Your task to perform on an android device: change keyboard looks Image 0: 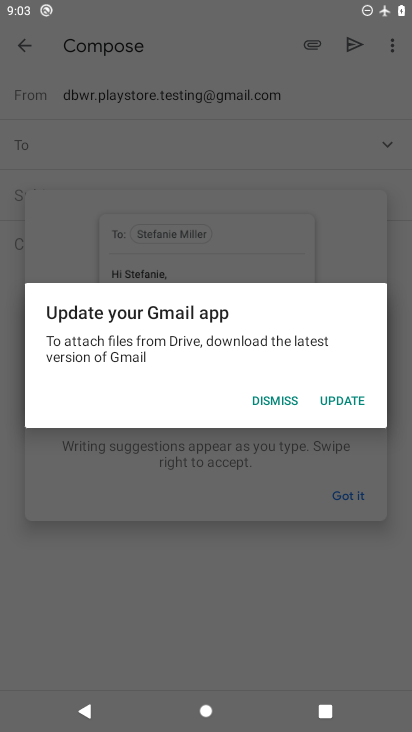
Step 0: press home button
Your task to perform on an android device: change keyboard looks Image 1: 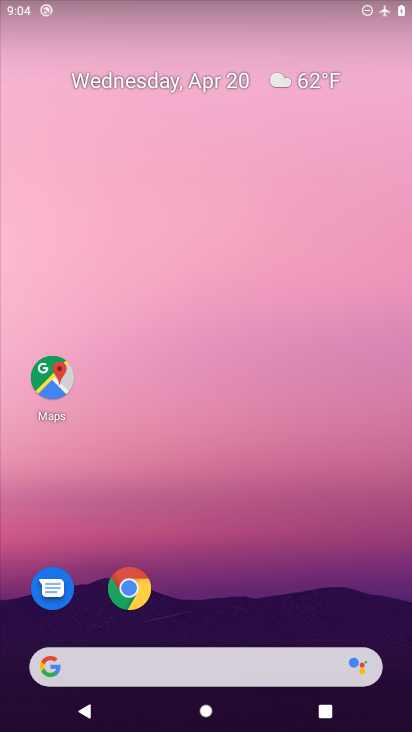
Step 1: drag from (219, 621) to (238, 38)
Your task to perform on an android device: change keyboard looks Image 2: 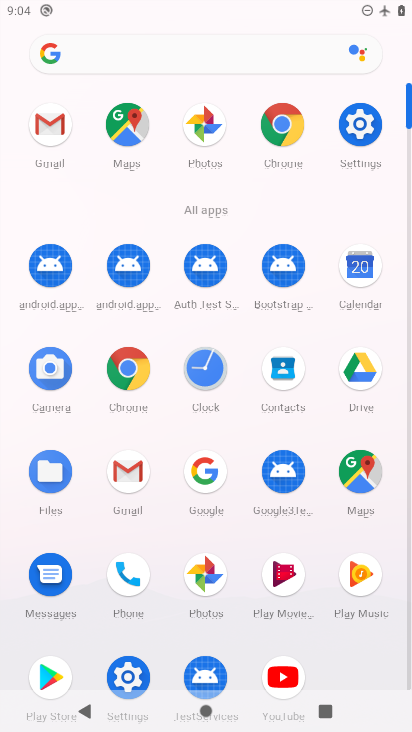
Step 2: click (359, 124)
Your task to perform on an android device: change keyboard looks Image 3: 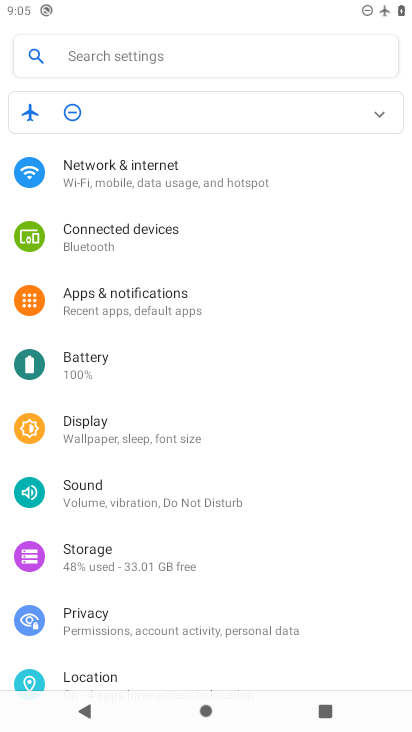
Step 3: drag from (212, 638) to (235, 155)
Your task to perform on an android device: change keyboard looks Image 4: 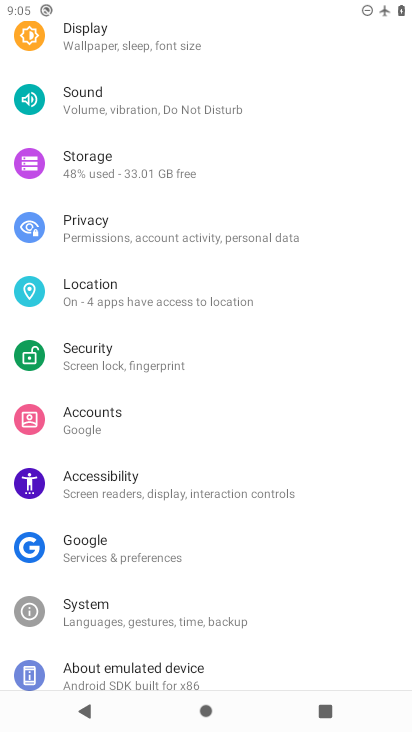
Step 4: click (140, 612)
Your task to perform on an android device: change keyboard looks Image 5: 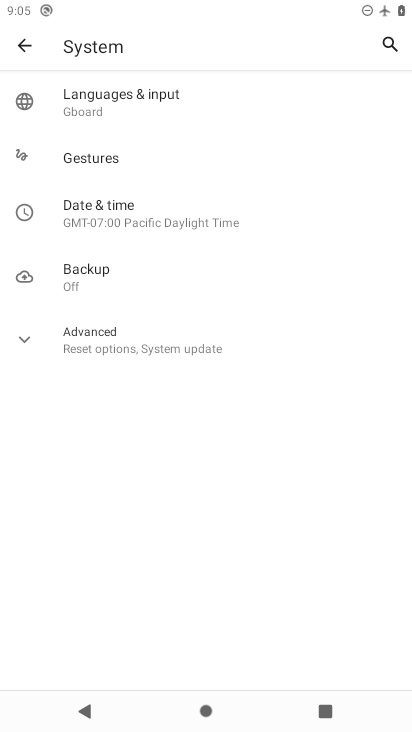
Step 5: click (26, 335)
Your task to perform on an android device: change keyboard looks Image 6: 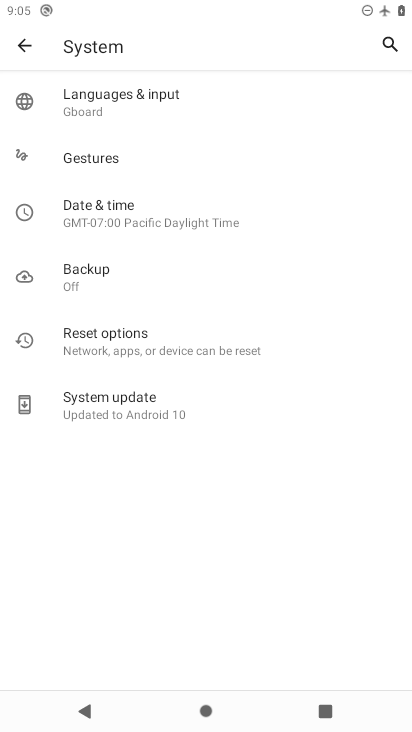
Step 6: click (47, 99)
Your task to perform on an android device: change keyboard looks Image 7: 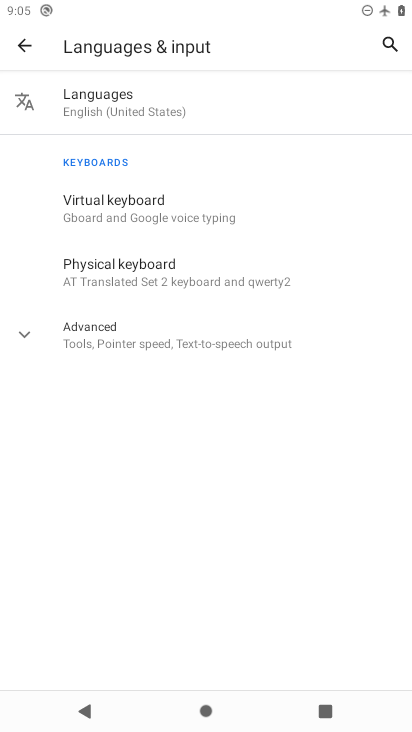
Step 7: click (110, 203)
Your task to perform on an android device: change keyboard looks Image 8: 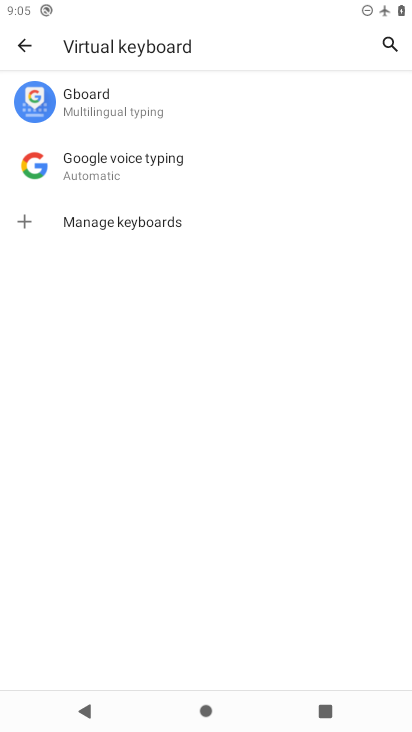
Step 8: click (118, 94)
Your task to perform on an android device: change keyboard looks Image 9: 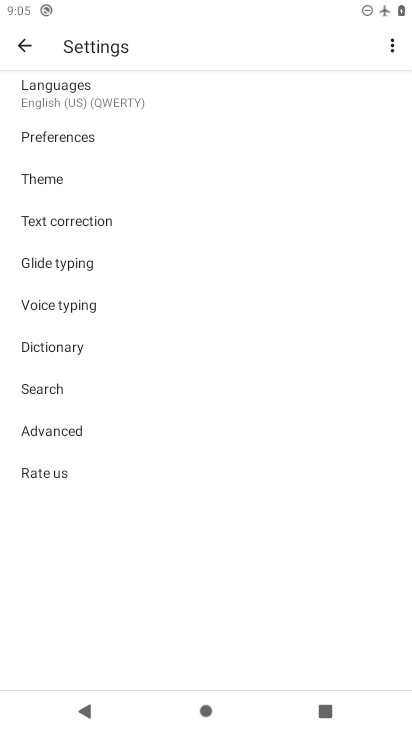
Step 9: click (75, 174)
Your task to perform on an android device: change keyboard looks Image 10: 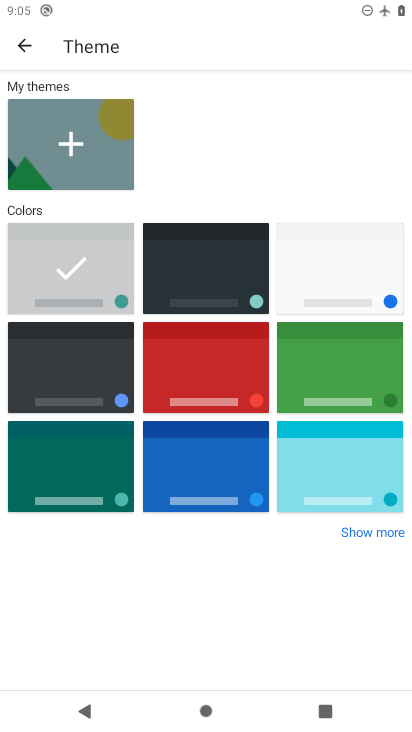
Step 10: click (323, 372)
Your task to perform on an android device: change keyboard looks Image 11: 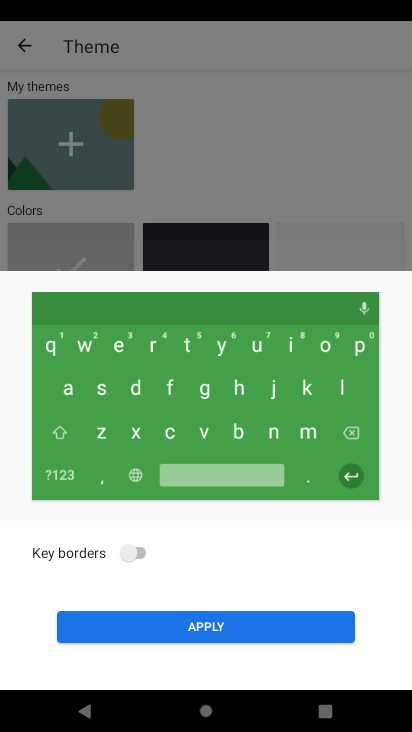
Step 11: click (209, 626)
Your task to perform on an android device: change keyboard looks Image 12: 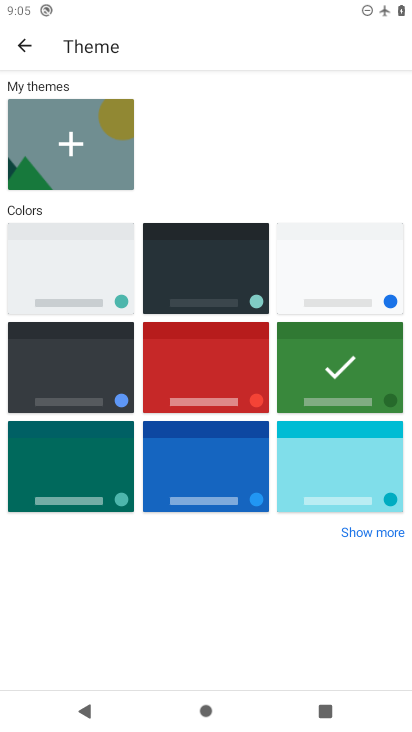
Step 12: task complete